Your task to perform on an android device: toggle javascript in the chrome app Image 0: 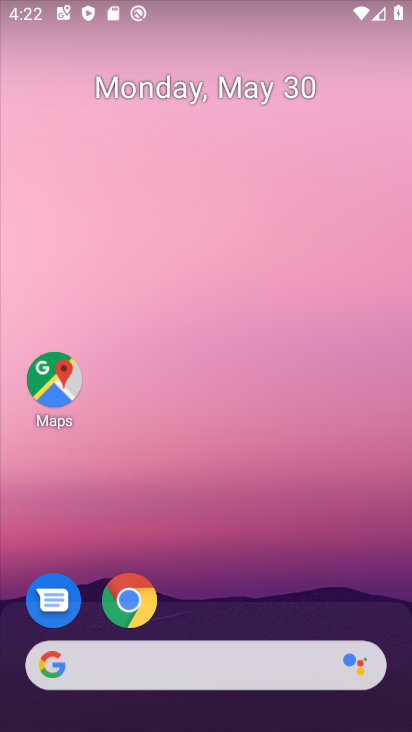
Step 0: click (127, 594)
Your task to perform on an android device: toggle javascript in the chrome app Image 1: 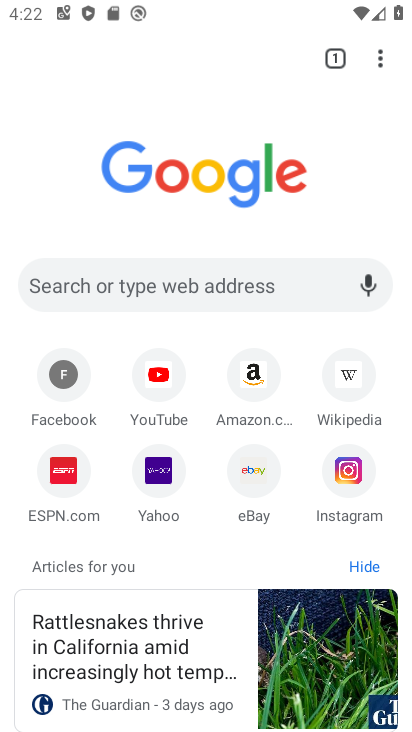
Step 1: click (380, 52)
Your task to perform on an android device: toggle javascript in the chrome app Image 2: 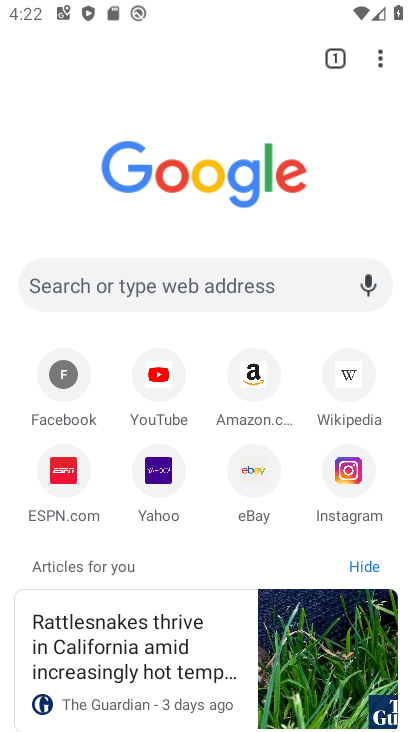
Step 2: click (380, 52)
Your task to perform on an android device: toggle javascript in the chrome app Image 3: 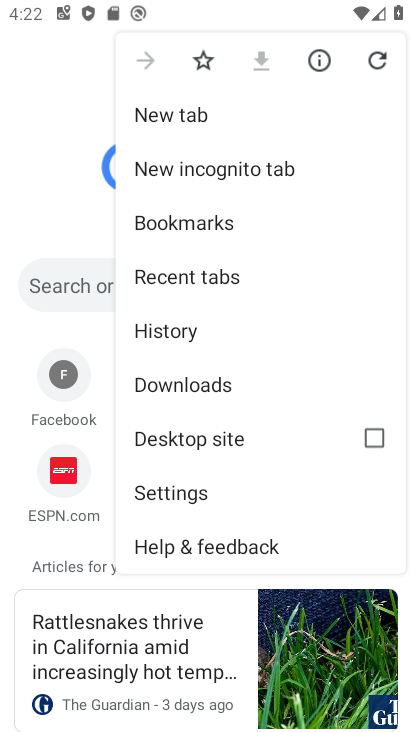
Step 3: click (223, 495)
Your task to perform on an android device: toggle javascript in the chrome app Image 4: 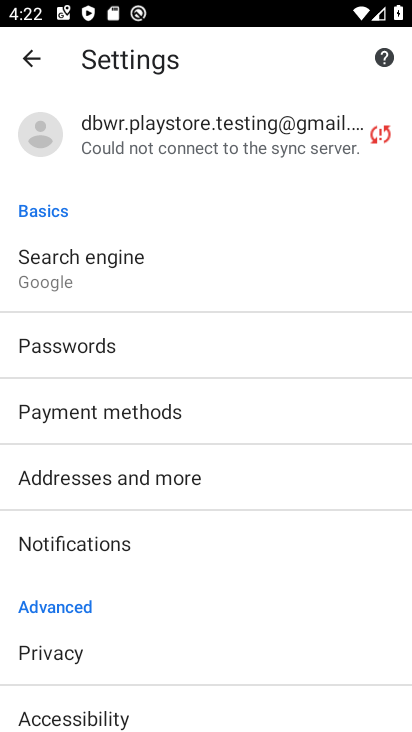
Step 4: drag from (180, 682) to (238, 93)
Your task to perform on an android device: toggle javascript in the chrome app Image 5: 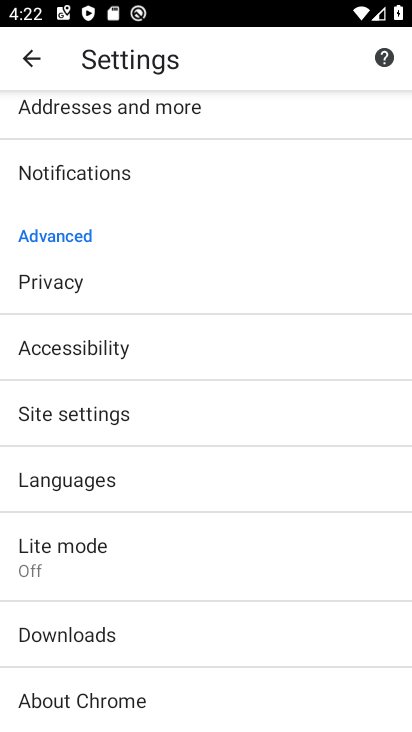
Step 5: click (138, 409)
Your task to perform on an android device: toggle javascript in the chrome app Image 6: 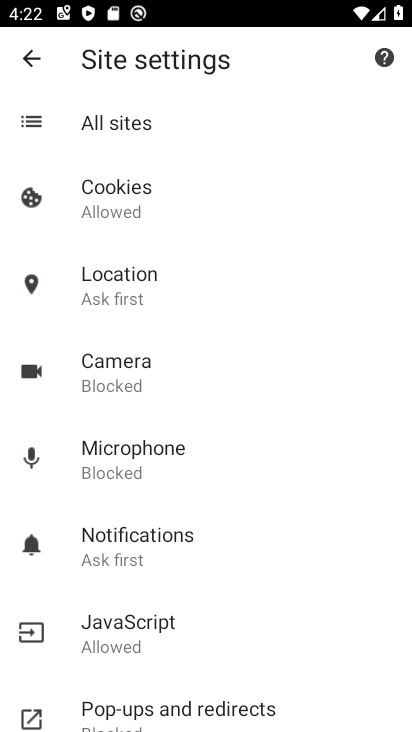
Step 6: click (186, 632)
Your task to perform on an android device: toggle javascript in the chrome app Image 7: 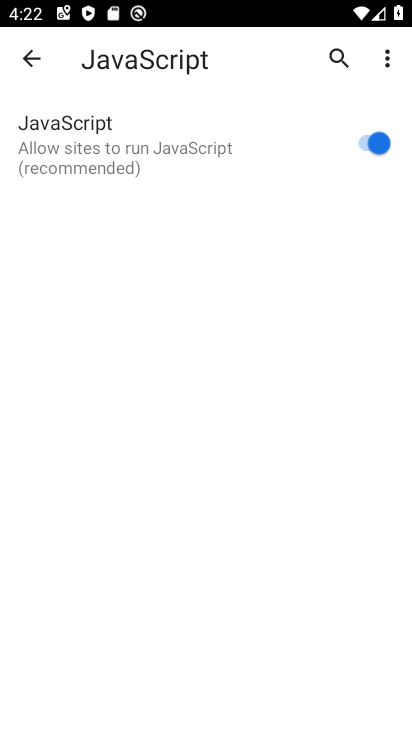
Step 7: click (365, 140)
Your task to perform on an android device: toggle javascript in the chrome app Image 8: 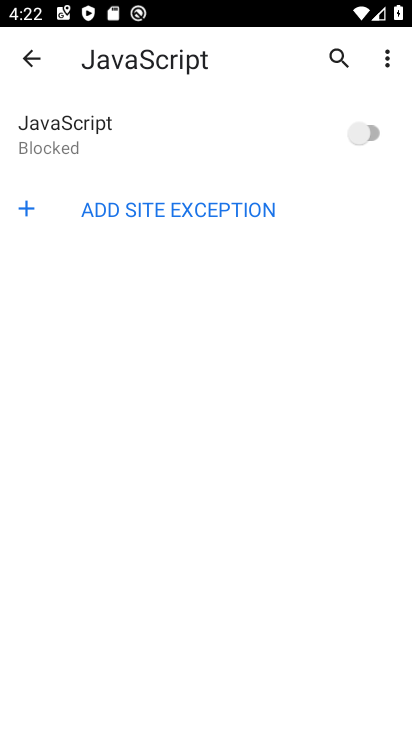
Step 8: task complete